Your task to perform on an android device: Open the web browser Image 0: 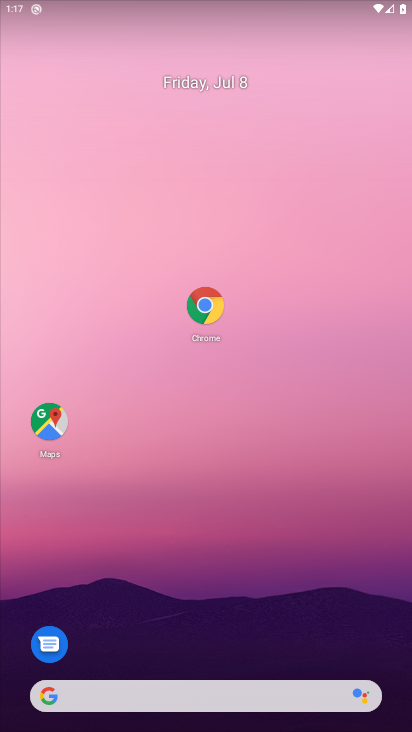
Step 0: click (211, 305)
Your task to perform on an android device: Open the web browser Image 1: 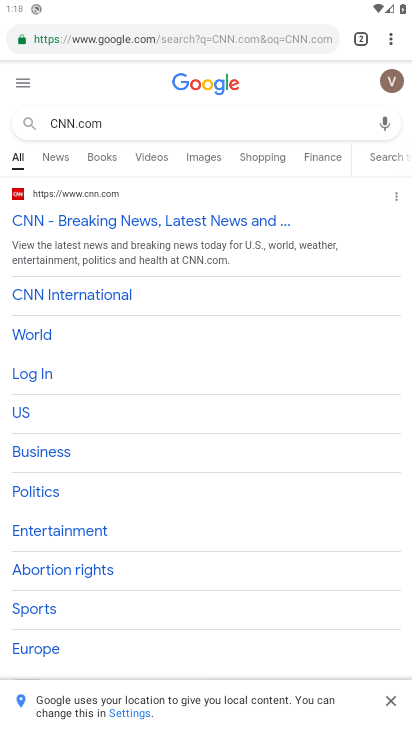
Step 1: task complete